Your task to perform on an android device: toggle sleep mode Image 0: 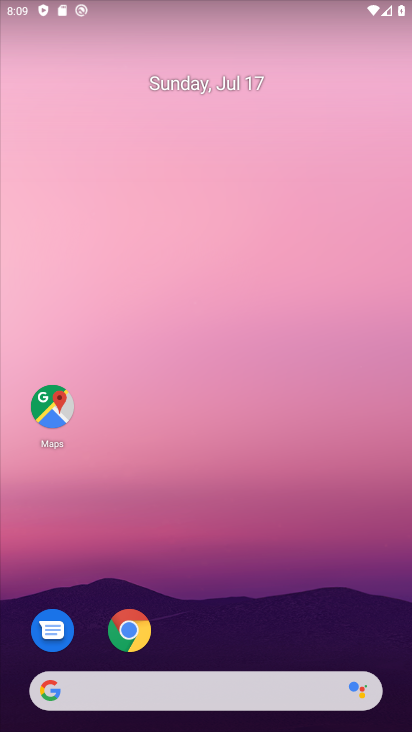
Step 0: task complete